Your task to perform on an android device: Go to Google Image 0: 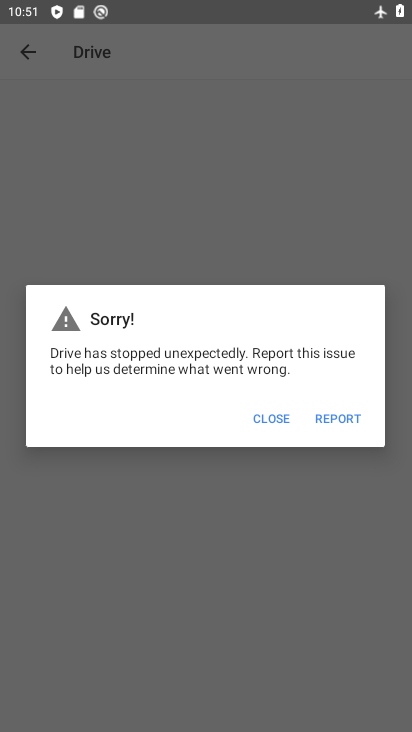
Step 0: press home button
Your task to perform on an android device: Go to Google Image 1: 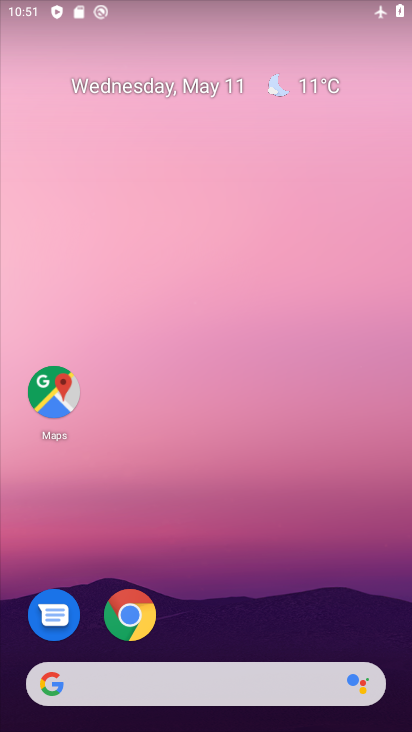
Step 1: drag from (238, 535) to (219, 3)
Your task to perform on an android device: Go to Google Image 2: 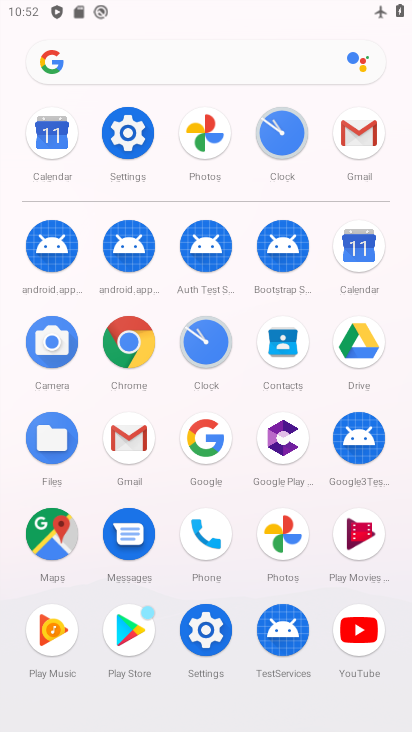
Step 2: click (206, 446)
Your task to perform on an android device: Go to Google Image 3: 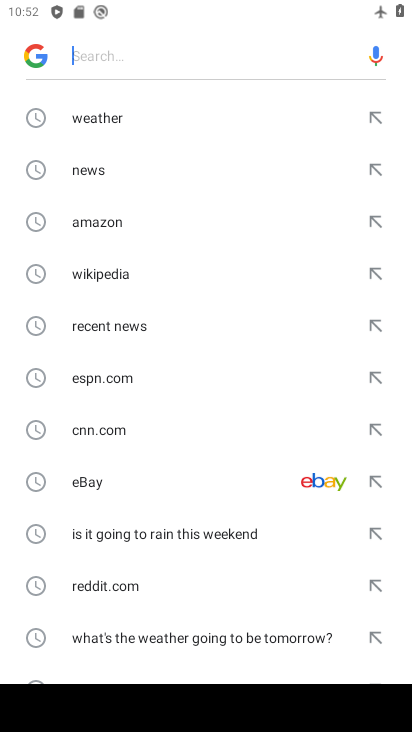
Step 3: task complete